Your task to perform on an android device: search for starred emails in the gmail app Image 0: 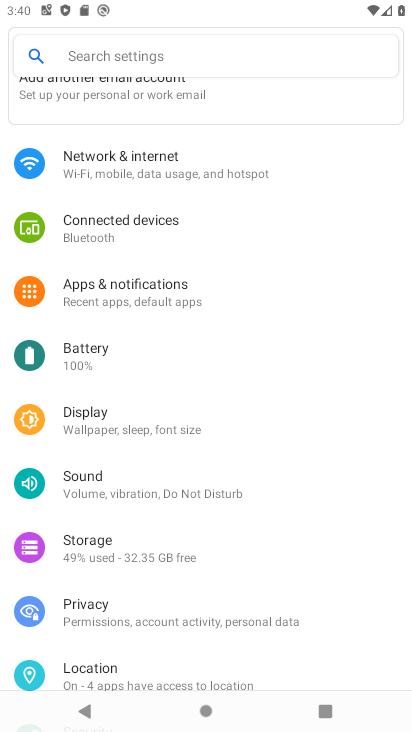
Step 0: press home button
Your task to perform on an android device: search for starred emails in the gmail app Image 1: 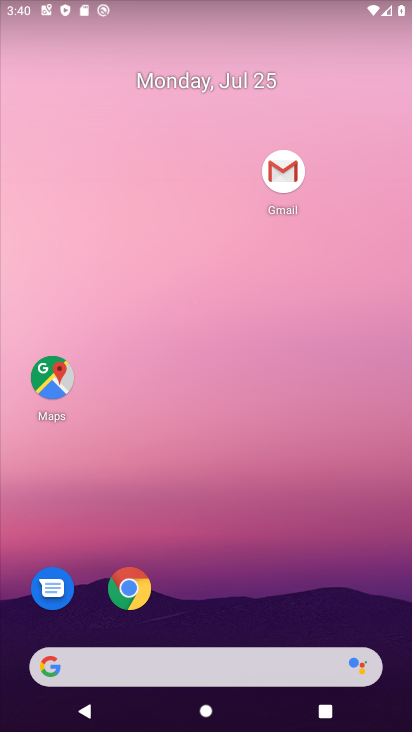
Step 1: drag from (299, 558) to (385, 82)
Your task to perform on an android device: search for starred emails in the gmail app Image 2: 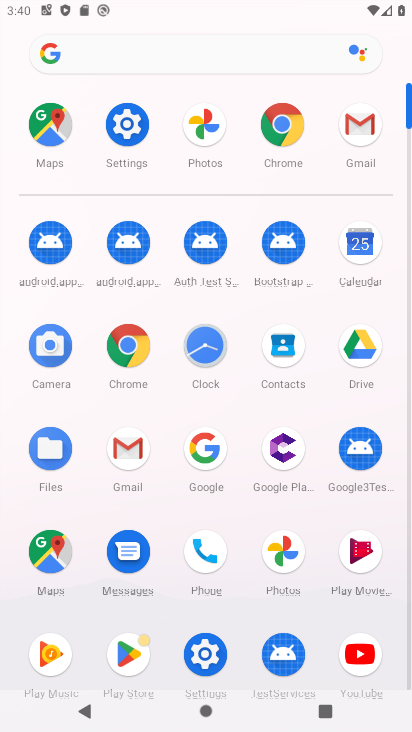
Step 2: click (359, 136)
Your task to perform on an android device: search for starred emails in the gmail app Image 3: 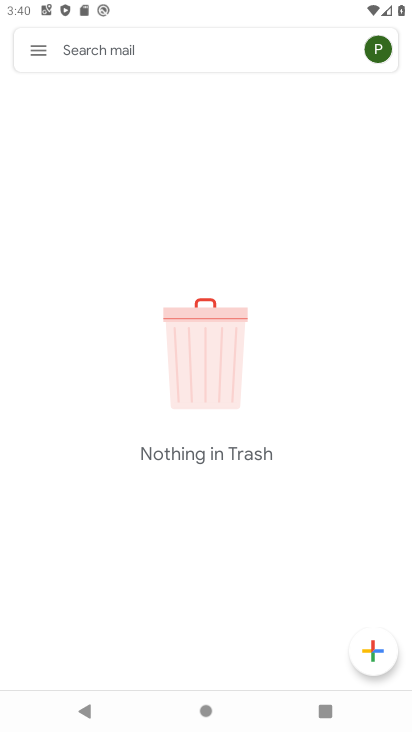
Step 3: click (39, 55)
Your task to perform on an android device: search for starred emails in the gmail app Image 4: 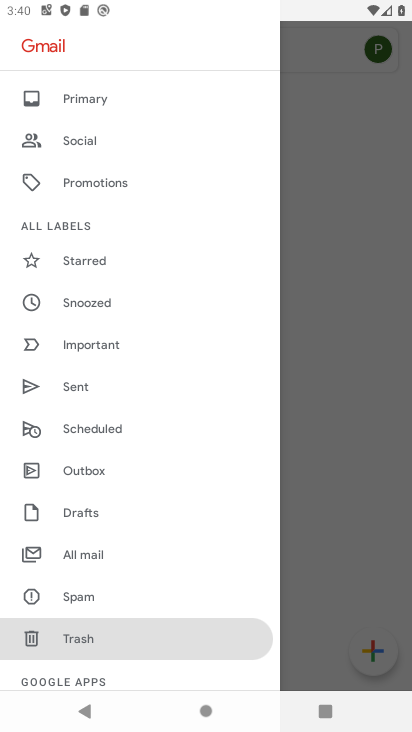
Step 4: click (81, 271)
Your task to perform on an android device: search for starred emails in the gmail app Image 5: 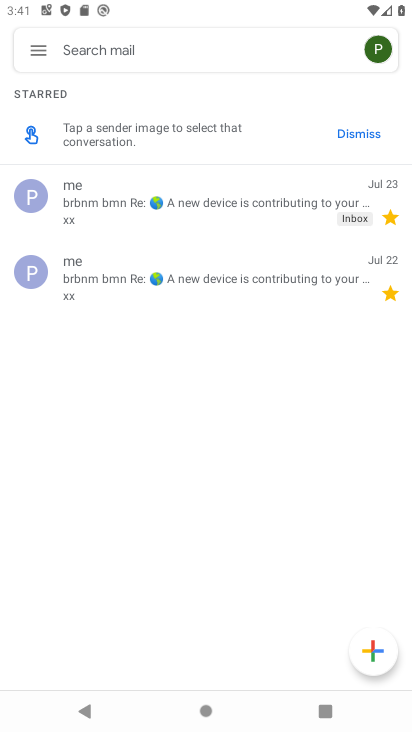
Step 5: task complete